Your task to perform on an android device: turn on bluetooth scan Image 0: 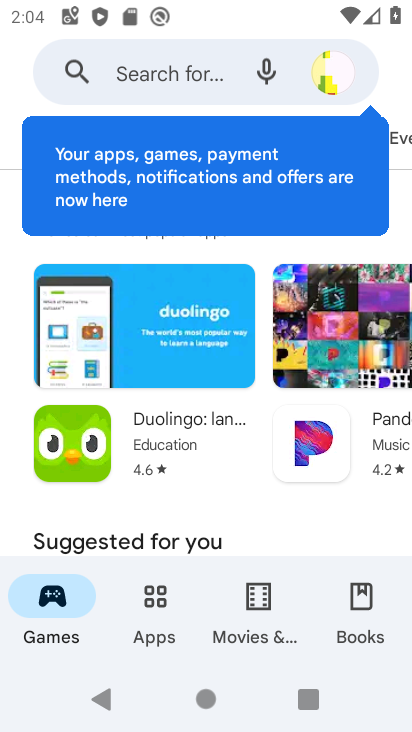
Step 0: press home button
Your task to perform on an android device: turn on bluetooth scan Image 1: 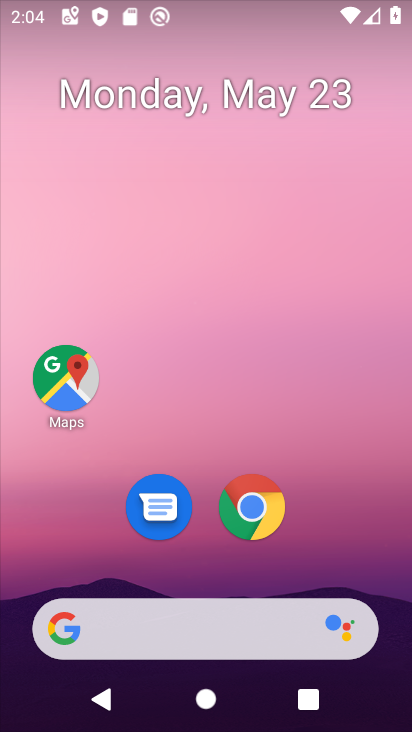
Step 1: drag from (236, 722) to (236, 255)
Your task to perform on an android device: turn on bluetooth scan Image 2: 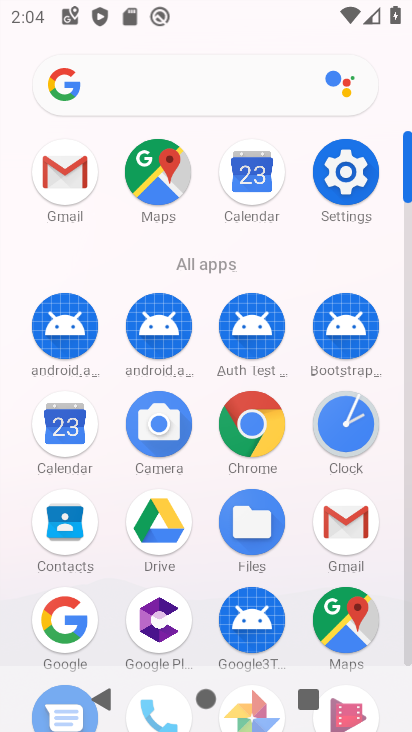
Step 2: click (348, 182)
Your task to perform on an android device: turn on bluetooth scan Image 3: 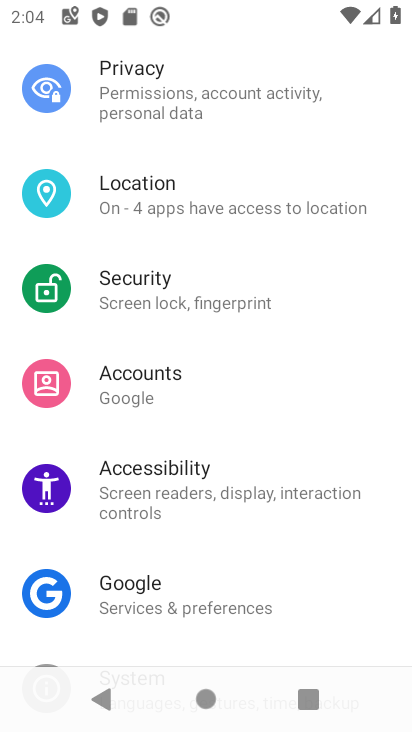
Step 3: drag from (207, 161) to (200, 606)
Your task to perform on an android device: turn on bluetooth scan Image 4: 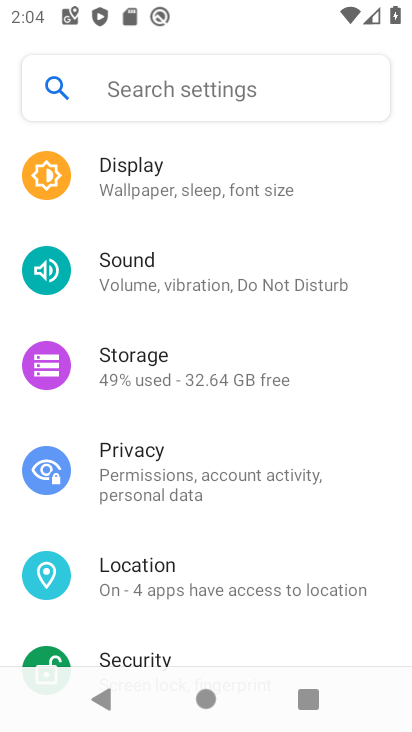
Step 4: click (155, 568)
Your task to perform on an android device: turn on bluetooth scan Image 5: 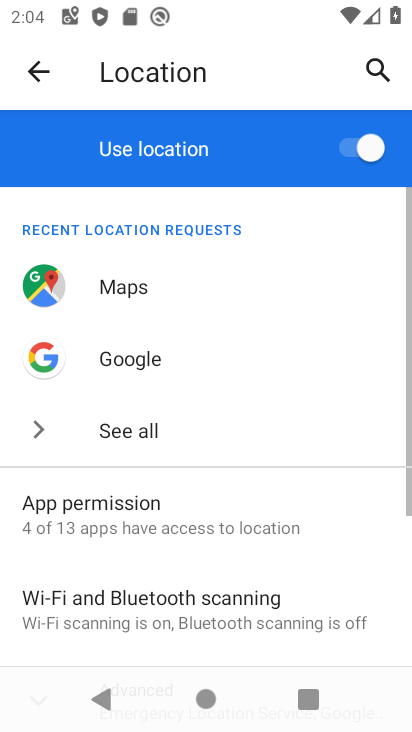
Step 5: drag from (148, 629) to (139, 335)
Your task to perform on an android device: turn on bluetooth scan Image 6: 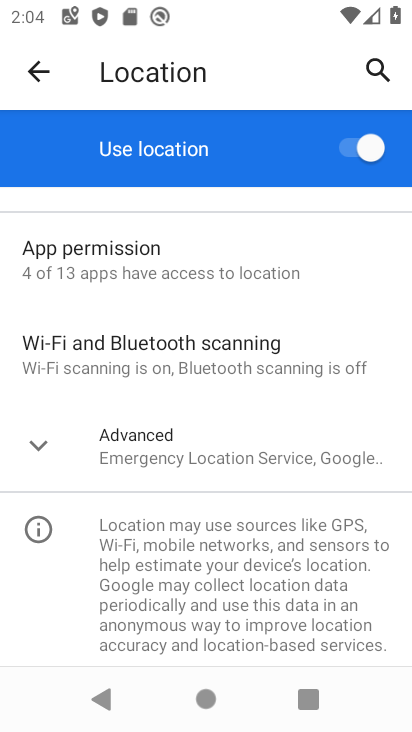
Step 6: click (160, 356)
Your task to perform on an android device: turn on bluetooth scan Image 7: 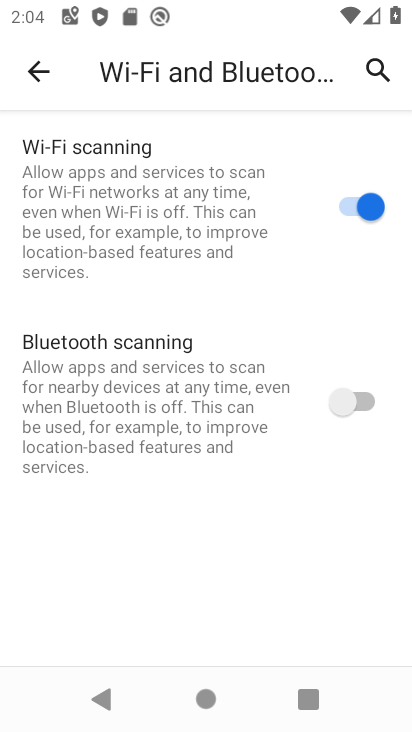
Step 7: click (359, 401)
Your task to perform on an android device: turn on bluetooth scan Image 8: 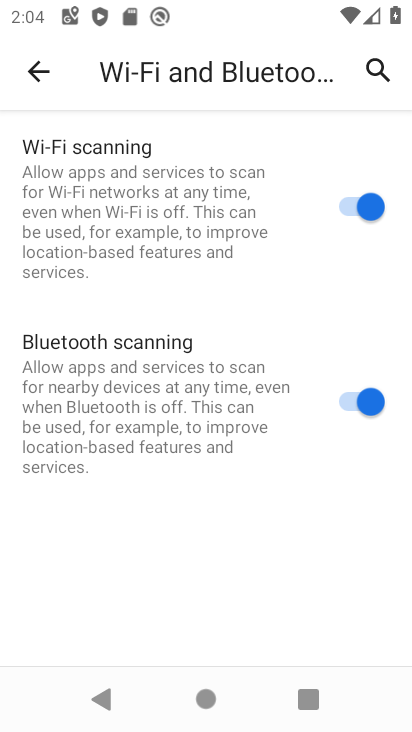
Step 8: task complete